Your task to perform on an android device: Go to accessibility settings Image 0: 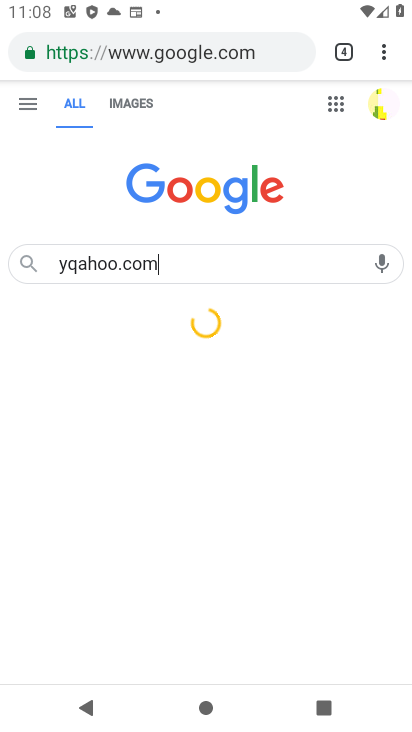
Step 0: press home button
Your task to perform on an android device: Go to accessibility settings Image 1: 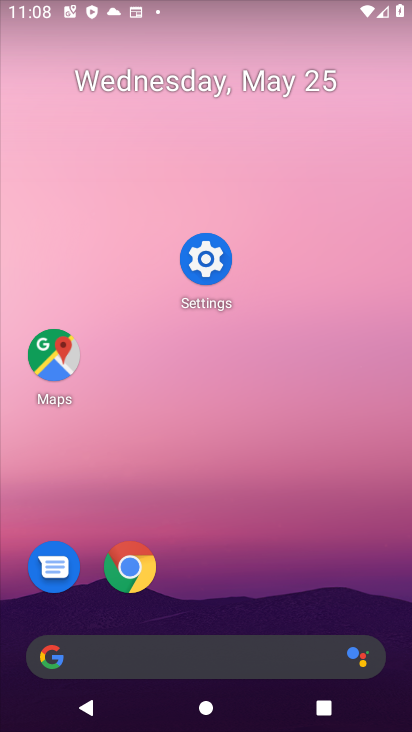
Step 1: click (192, 286)
Your task to perform on an android device: Go to accessibility settings Image 2: 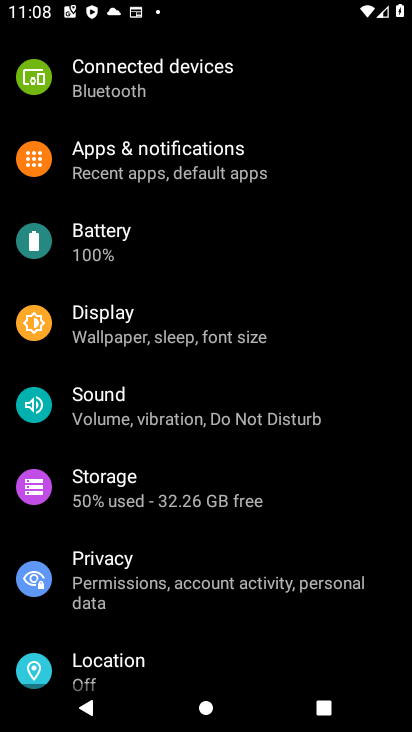
Step 2: drag from (238, 579) to (246, 394)
Your task to perform on an android device: Go to accessibility settings Image 3: 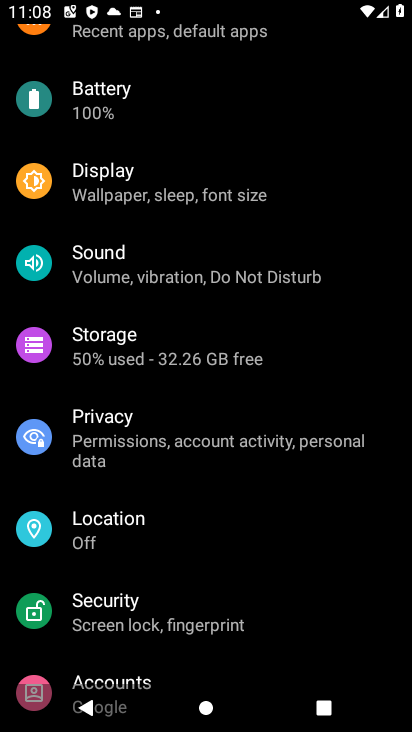
Step 3: drag from (156, 621) to (157, 275)
Your task to perform on an android device: Go to accessibility settings Image 4: 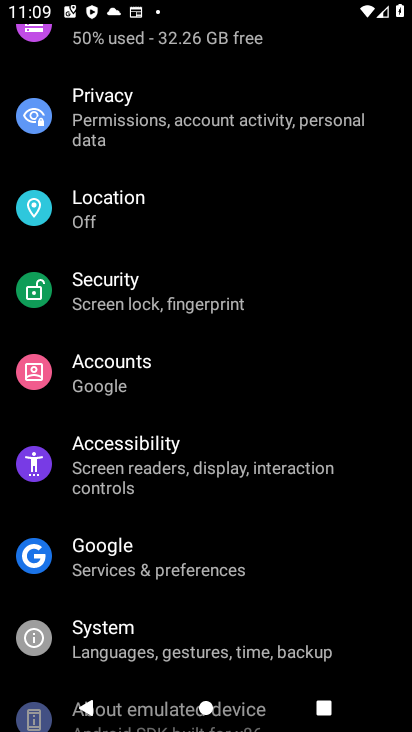
Step 4: drag from (170, 607) to (178, 165)
Your task to perform on an android device: Go to accessibility settings Image 5: 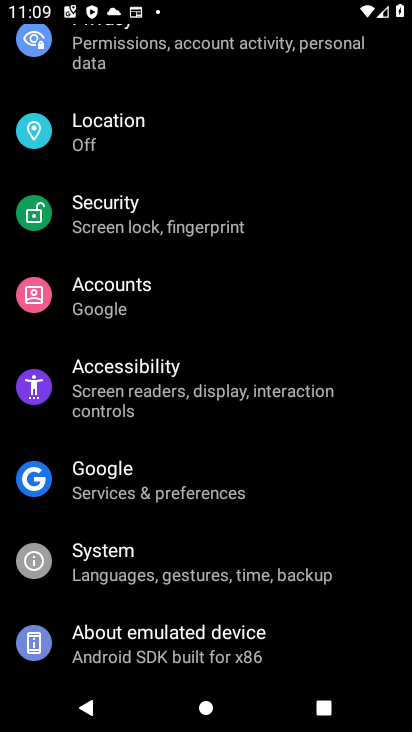
Step 5: click (165, 372)
Your task to perform on an android device: Go to accessibility settings Image 6: 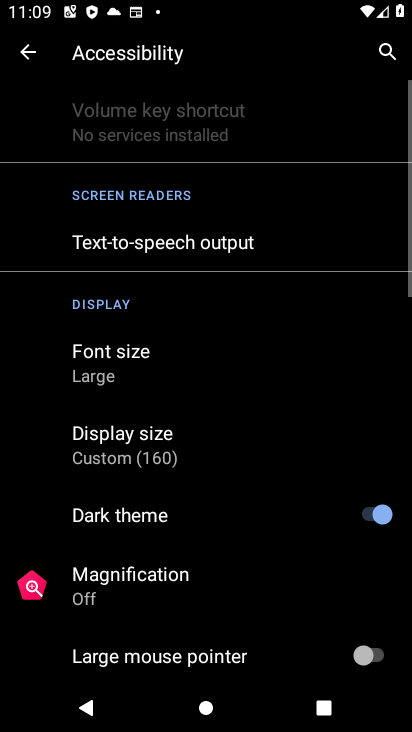
Step 6: task complete